Your task to perform on an android device: Clear the cart on walmart. Add "logitech g pro" to the cart on walmart, then select checkout. Image 0: 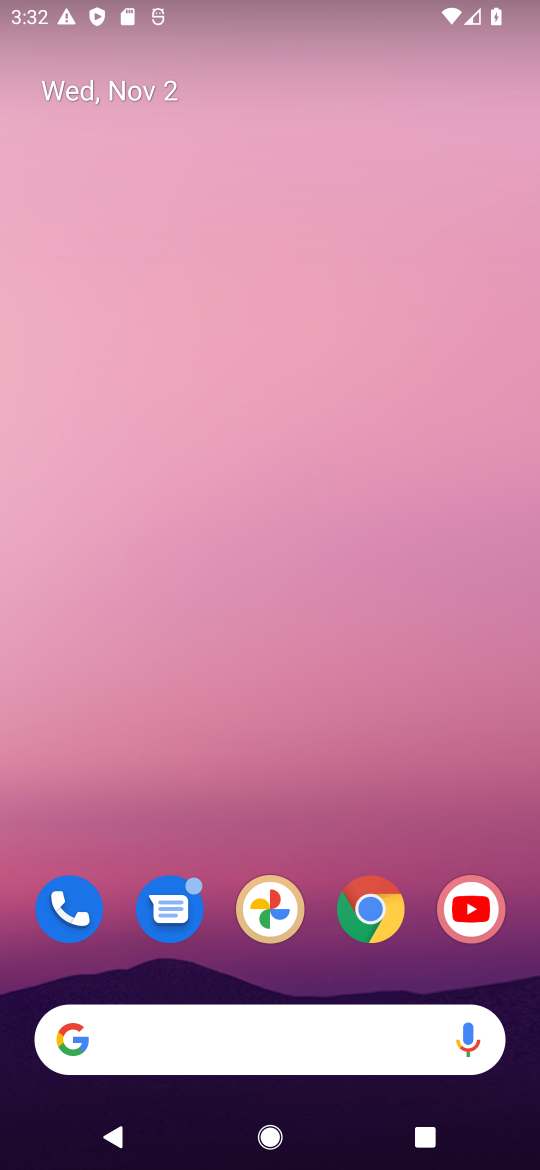
Step 0: click (378, 911)
Your task to perform on an android device: Clear the cart on walmart. Add "logitech g pro" to the cart on walmart, then select checkout. Image 1: 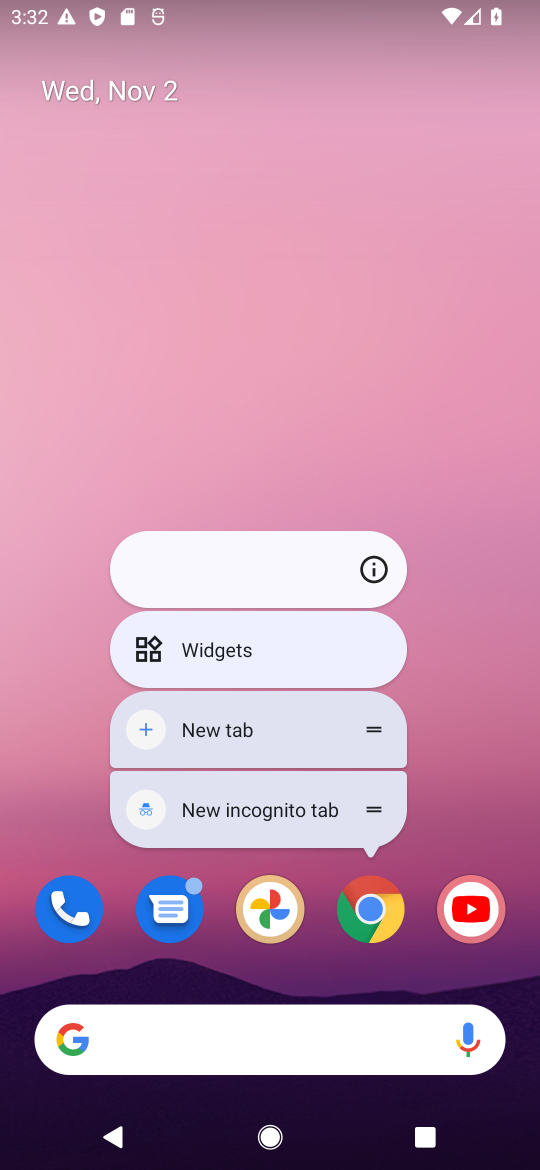
Step 1: click (370, 924)
Your task to perform on an android device: Clear the cart on walmart. Add "logitech g pro" to the cart on walmart, then select checkout. Image 2: 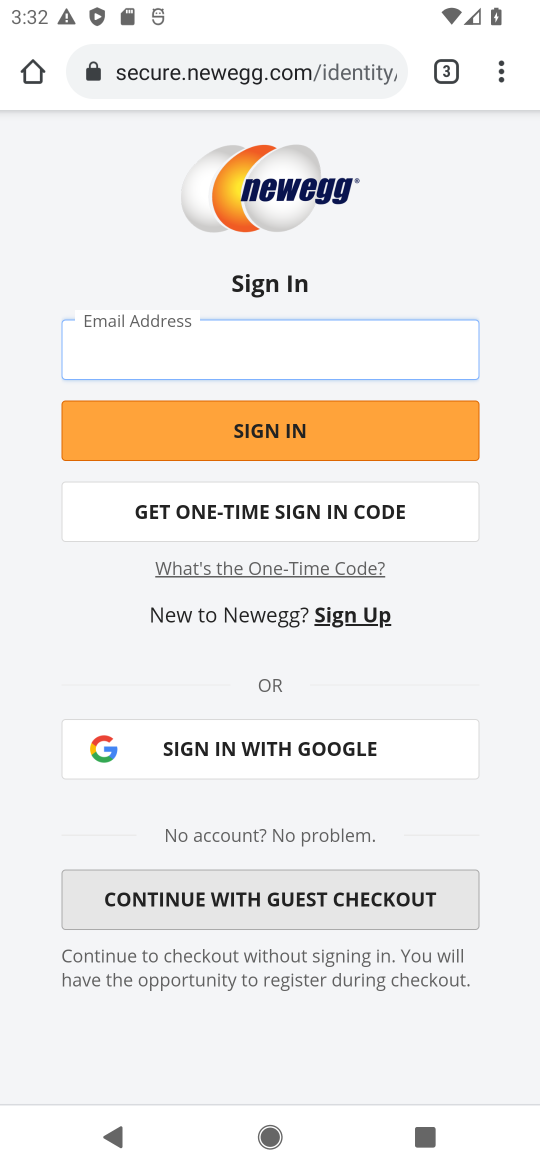
Step 2: click (289, 68)
Your task to perform on an android device: Clear the cart on walmart. Add "logitech g pro" to the cart on walmart, then select checkout. Image 3: 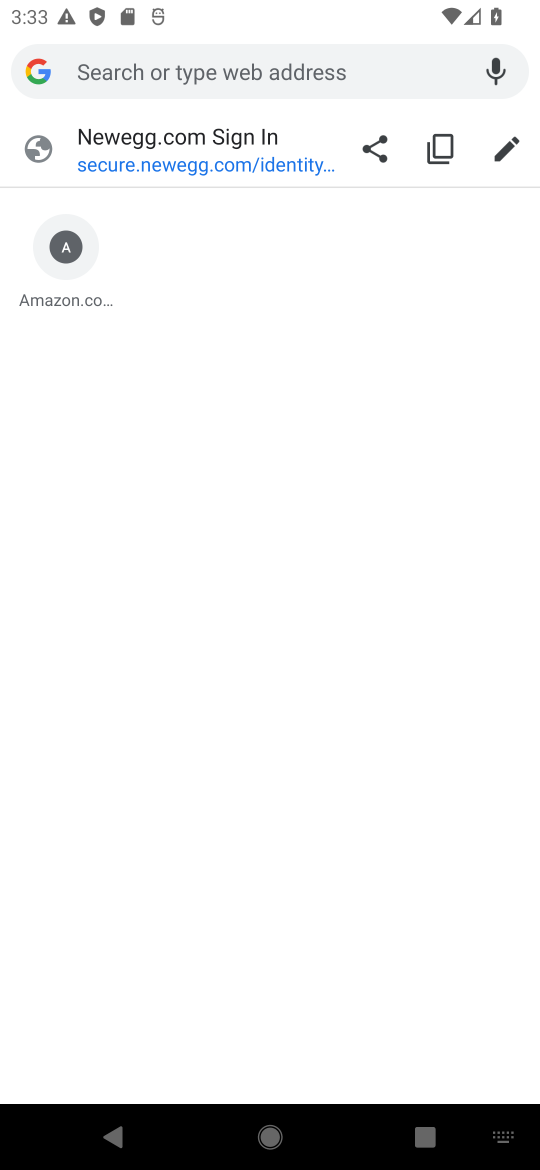
Step 3: type "walmart"
Your task to perform on an android device: Clear the cart on walmart. Add "logitech g pro" to the cart on walmart, then select checkout. Image 4: 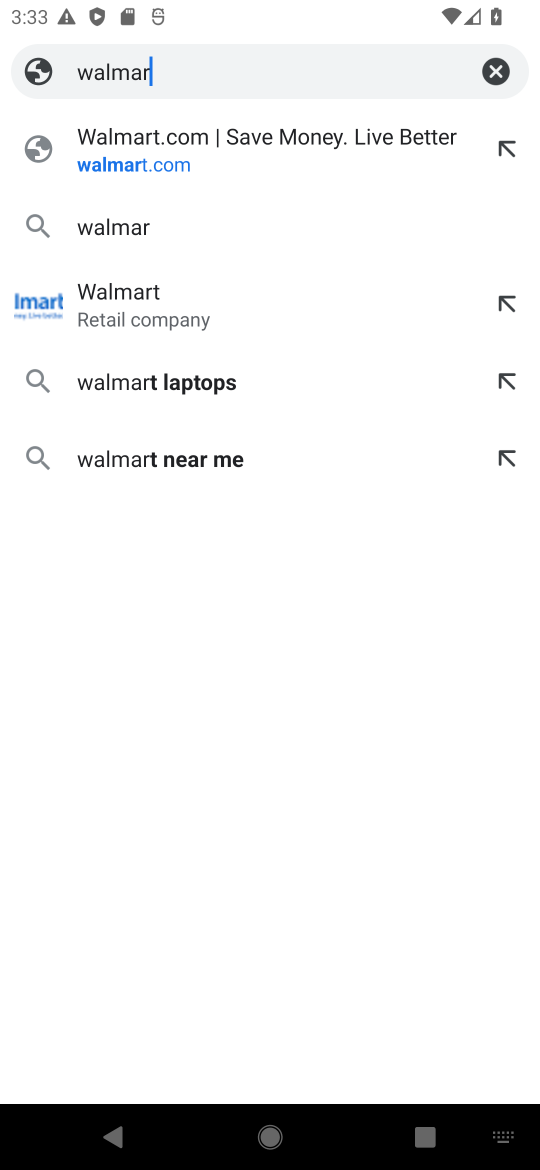
Step 4: press enter
Your task to perform on an android device: Clear the cart on walmart. Add "logitech g pro" to the cart on walmart, then select checkout. Image 5: 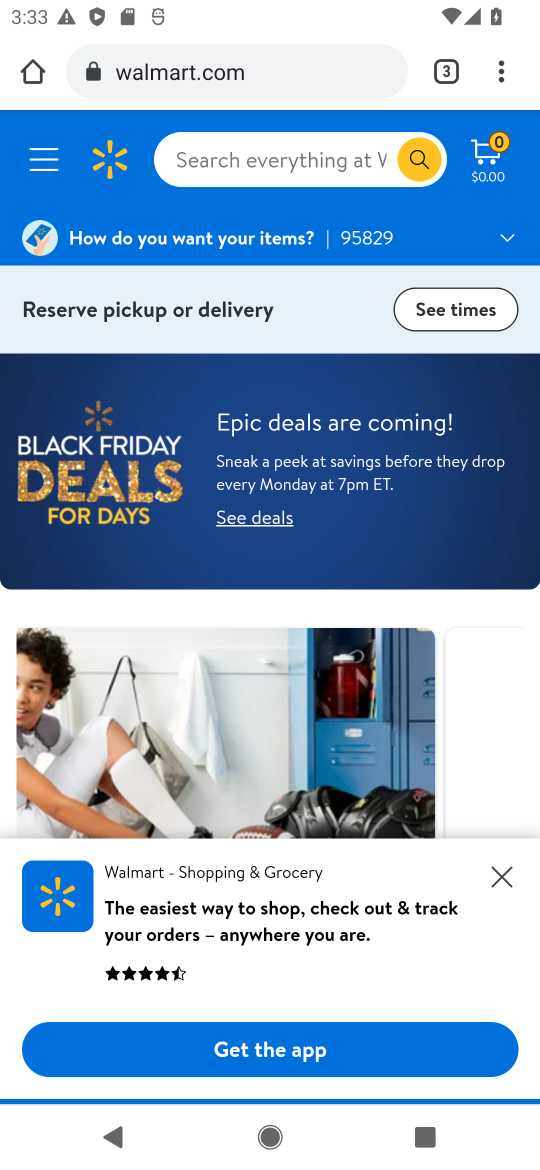
Step 5: click (322, 163)
Your task to perform on an android device: Clear the cart on walmart. Add "logitech g pro" to the cart on walmart, then select checkout. Image 6: 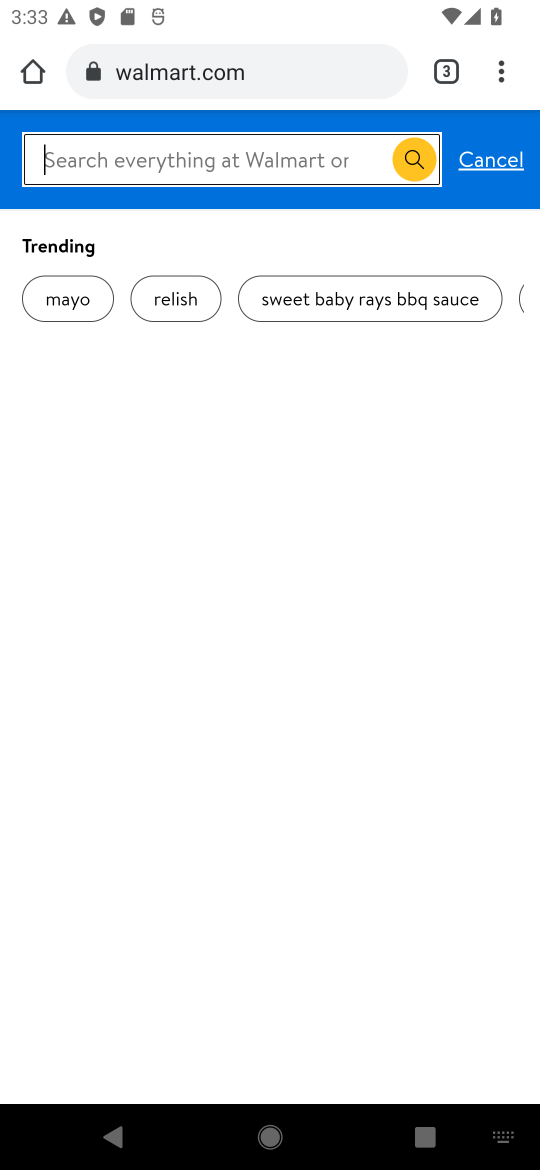
Step 6: type "logitech g pro"
Your task to perform on an android device: Clear the cart on walmart. Add "logitech g pro" to the cart on walmart, then select checkout. Image 7: 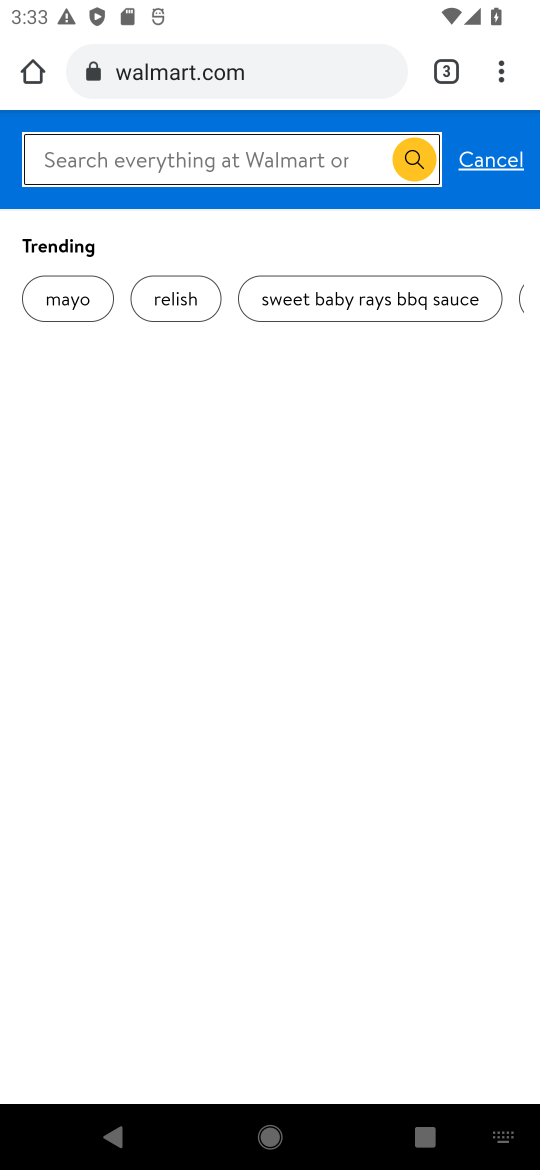
Step 7: press enter
Your task to perform on an android device: Clear the cart on walmart. Add "logitech g pro" to the cart on walmart, then select checkout. Image 8: 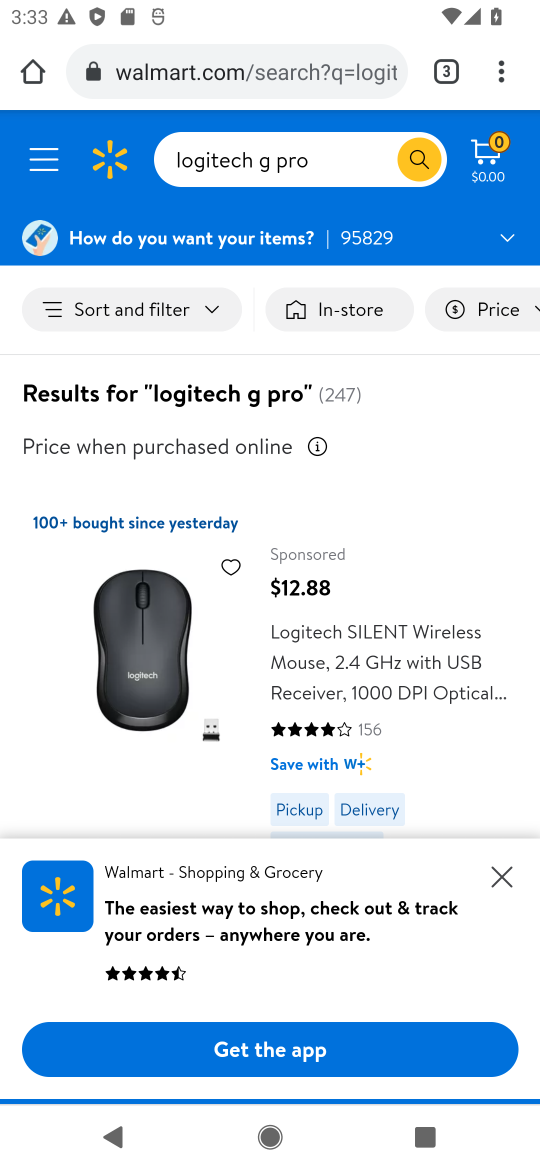
Step 8: click (326, 655)
Your task to perform on an android device: Clear the cart on walmart. Add "logitech g pro" to the cart on walmart, then select checkout. Image 9: 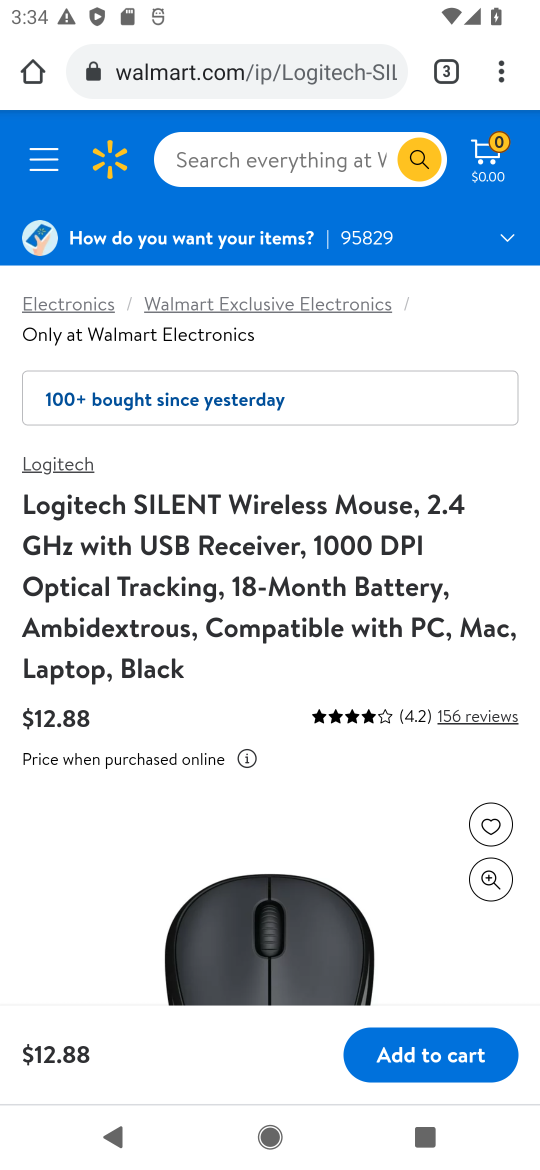
Step 9: click (442, 1049)
Your task to perform on an android device: Clear the cart on walmart. Add "logitech g pro" to the cart on walmart, then select checkout. Image 10: 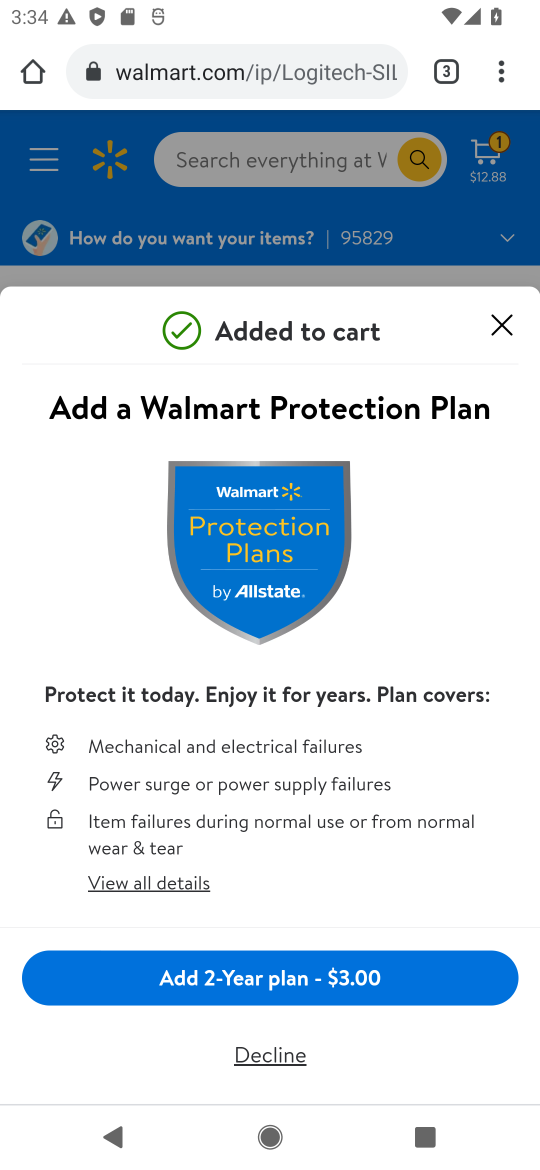
Step 10: click (504, 321)
Your task to perform on an android device: Clear the cart on walmart. Add "logitech g pro" to the cart on walmart, then select checkout. Image 11: 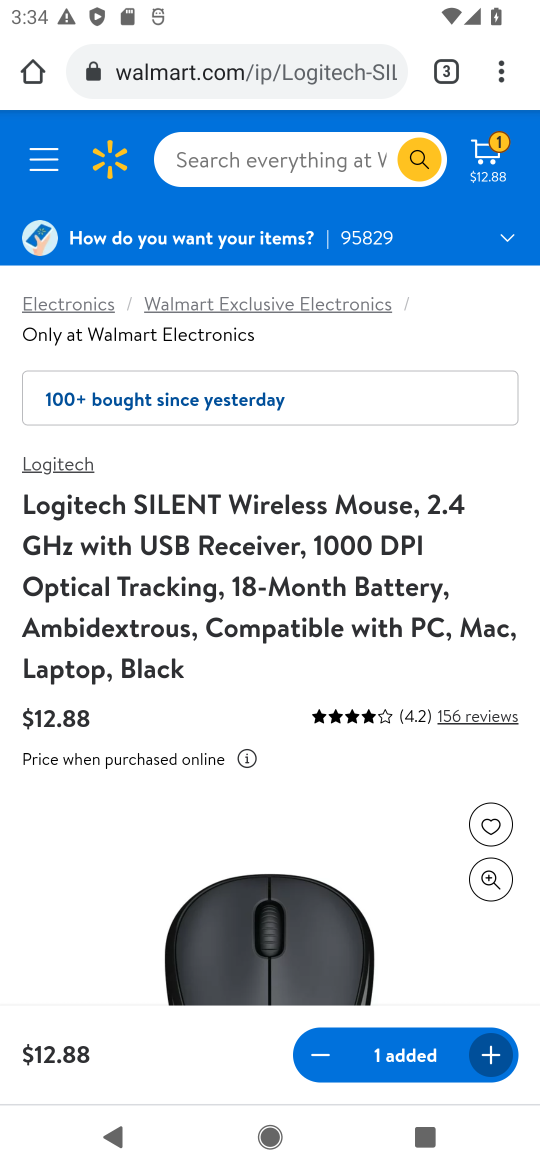
Step 11: click (490, 150)
Your task to perform on an android device: Clear the cart on walmart. Add "logitech g pro" to the cart on walmart, then select checkout. Image 12: 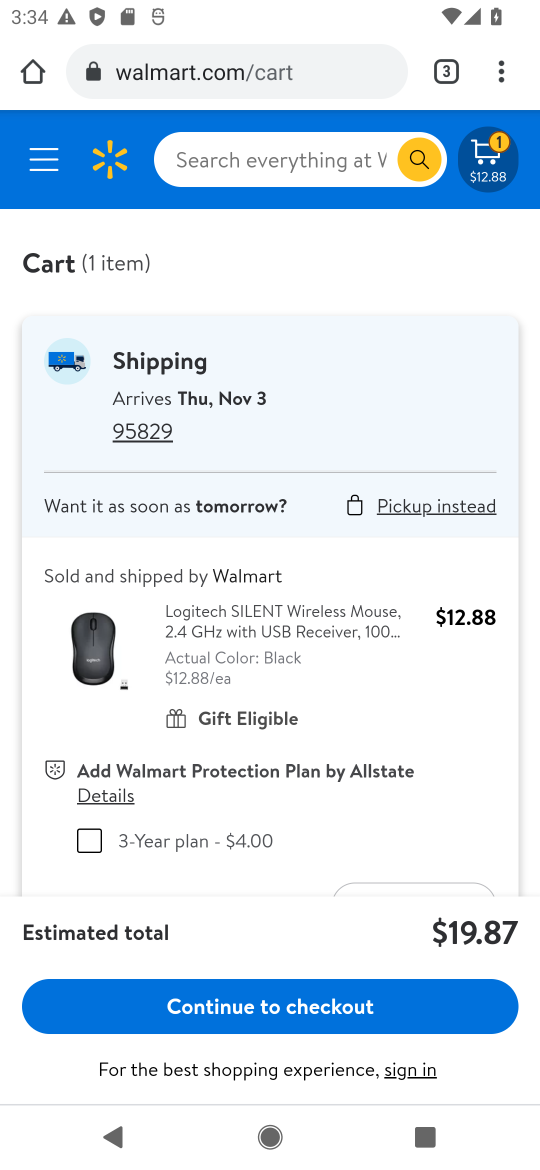
Step 12: click (270, 1010)
Your task to perform on an android device: Clear the cart on walmart. Add "logitech g pro" to the cart on walmart, then select checkout. Image 13: 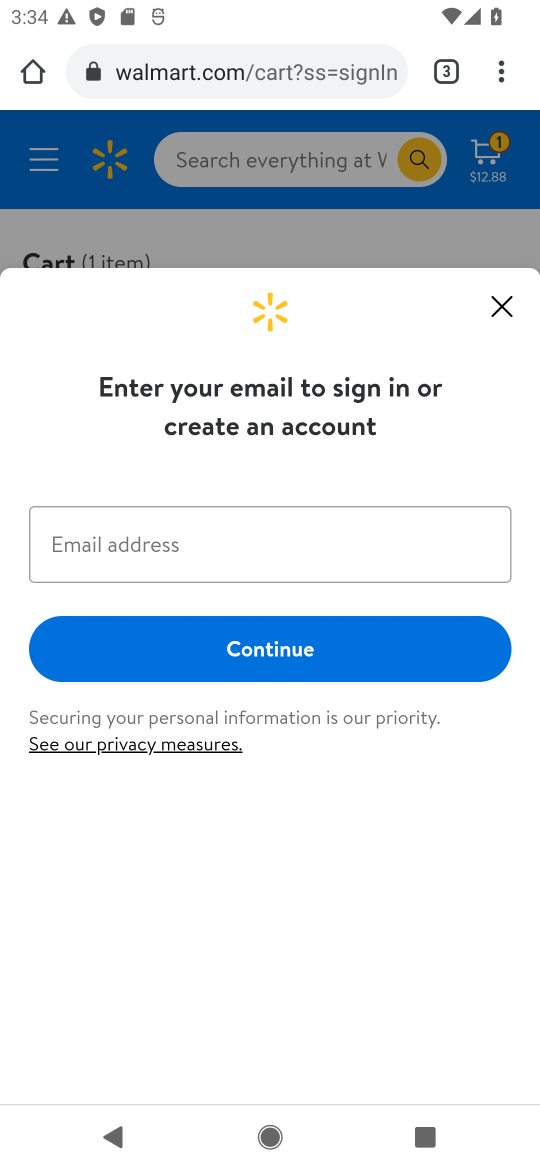
Step 13: task complete